Your task to perform on an android device: Open Yahoo.com Image 0: 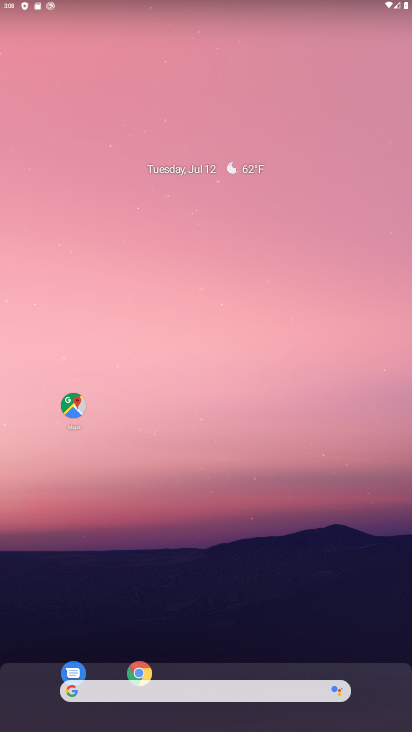
Step 0: click (131, 680)
Your task to perform on an android device: Open Yahoo.com Image 1: 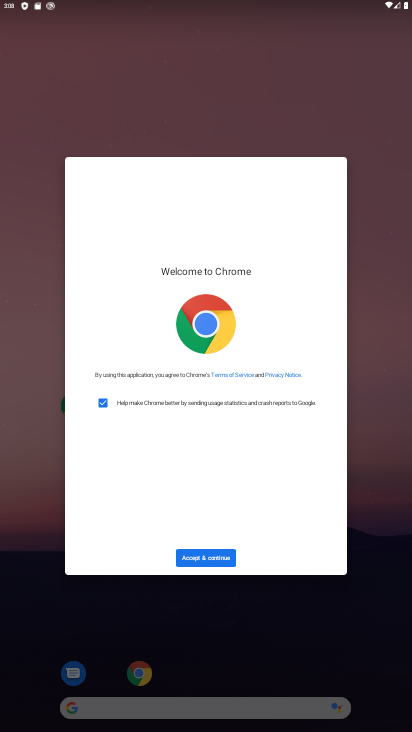
Step 1: click (213, 553)
Your task to perform on an android device: Open Yahoo.com Image 2: 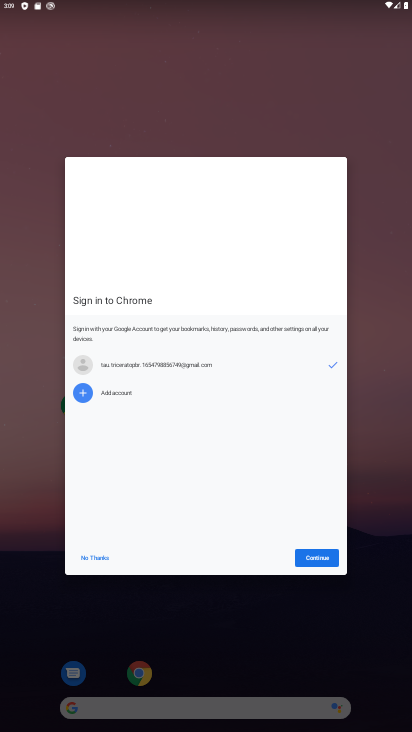
Step 2: click (323, 558)
Your task to perform on an android device: Open Yahoo.com Image 3: 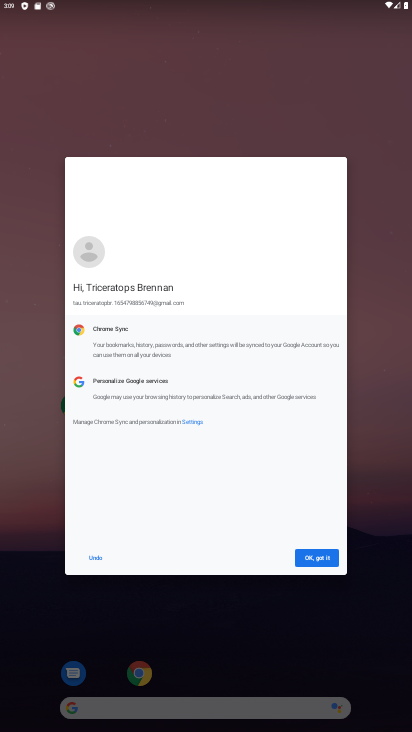
Step 3: click (324, 558)
Your task to perform on an android device: Open Yahoo.com Image 4: 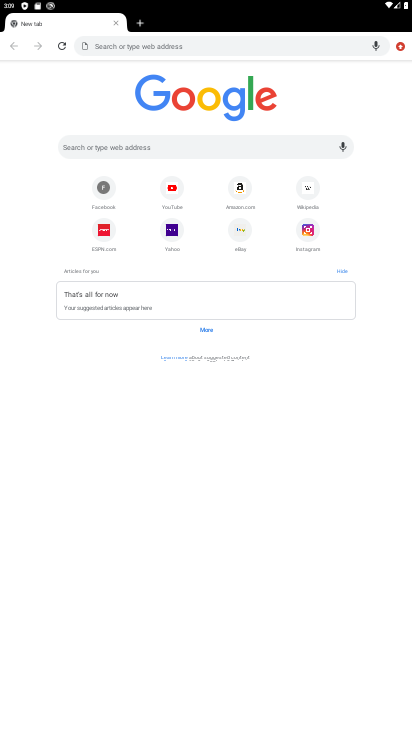
Step 4: click (171, 239)
Your task to perform on an android device: Open Yahoo.com Image 5: 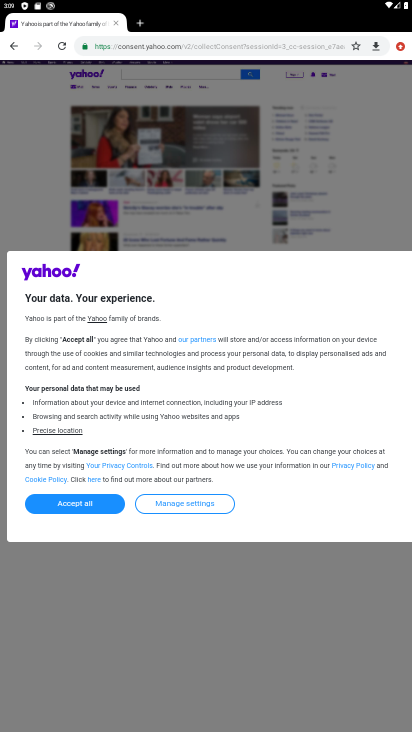
Step 5: click (91, 503)
Your task to perform on an android device: Open Yahoo.com Image 6: 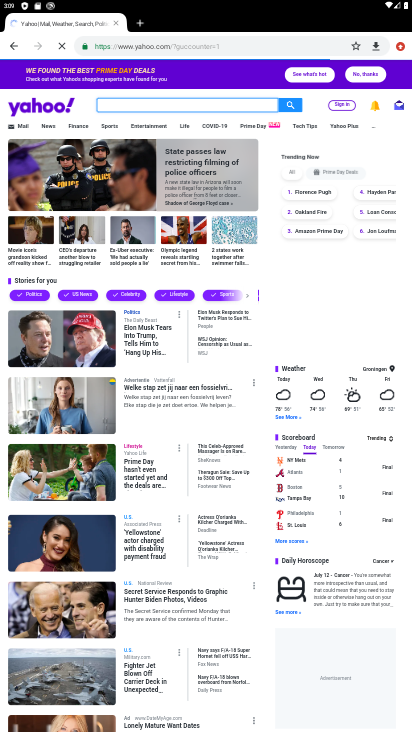
Step 6: task complete